Your task to perform on an android device: See recent photos Image 0: 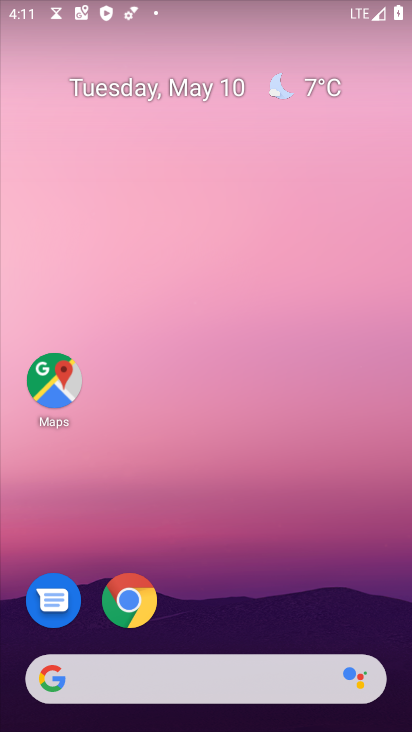
Step 0: click (250, 577)
Your task to perform on an android device: See recent photos Image 1: 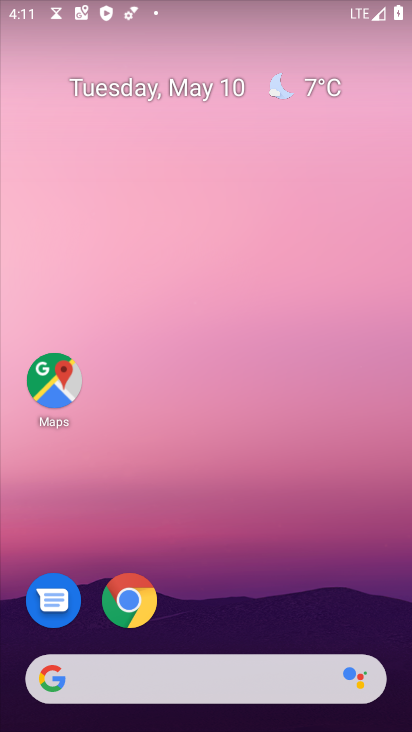
Step 1: drag from (253, 545) to (214, 299)
Your task to perform on an android device: See recent photos Image 2: 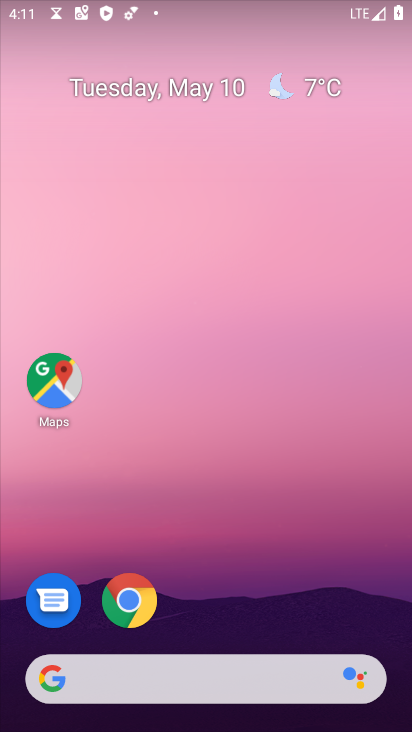
Step 2: drag from (241, 632) to (163, 59)
Your task to perform on an android device: See recent photos Image 3: 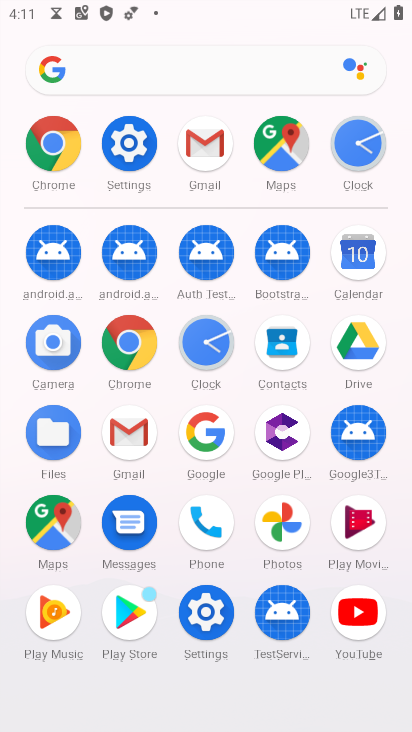
Step 3: click (270, 519)
Your task to perform on an android device: See recent photos Image 4: 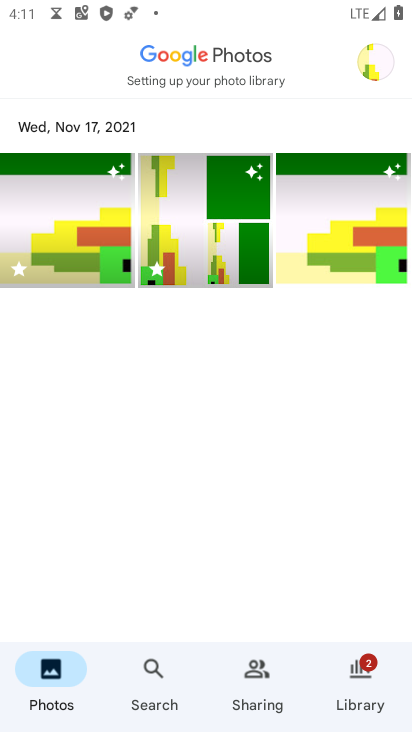
Step 4: task complete